Your task to perform on an android device: toggle sleep mode Image 0: 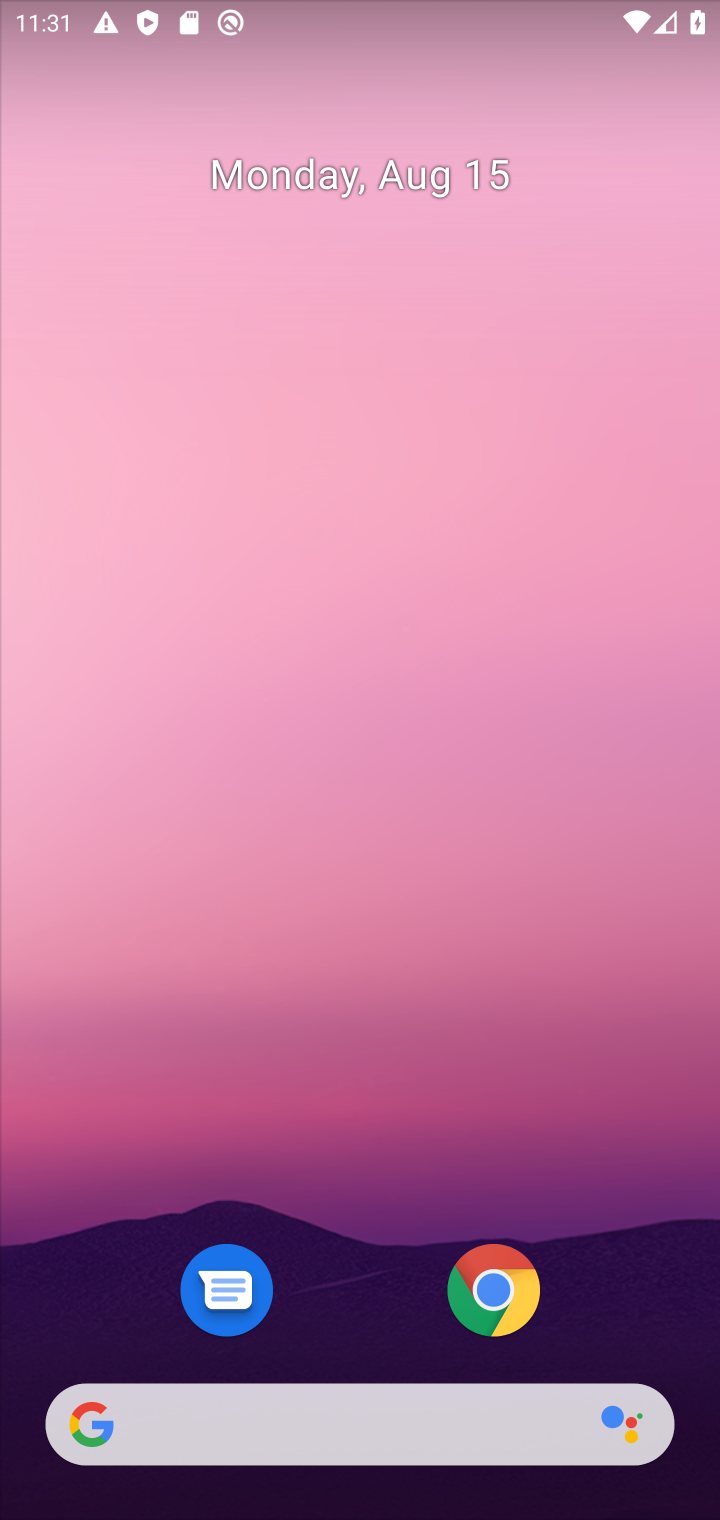
Step 0: press home button
Your task to perform on an android device: toggle sleep mode Image 1: 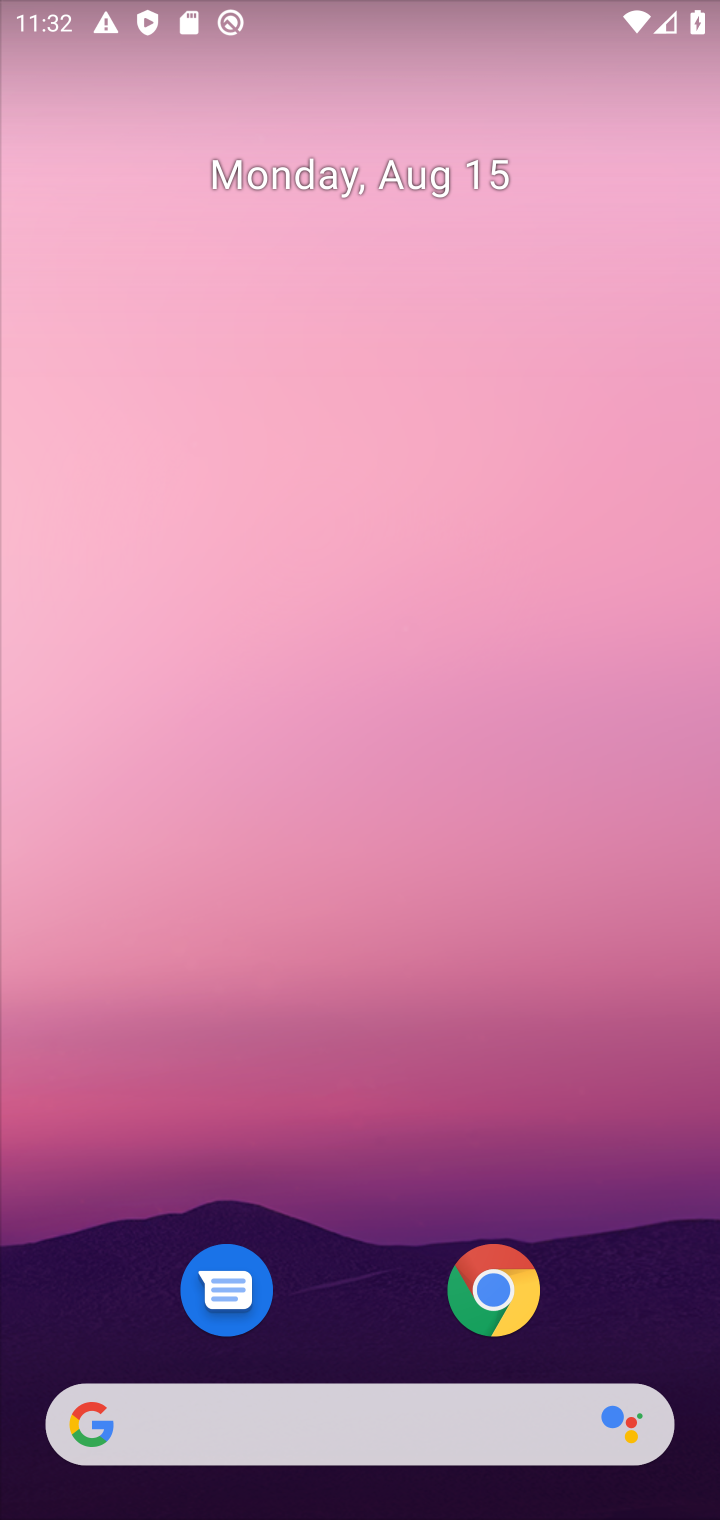
Step 1: drag from (73, 1318) to (607, 64)
Your task to perform on an android device: toggle sleep mode Image 2: 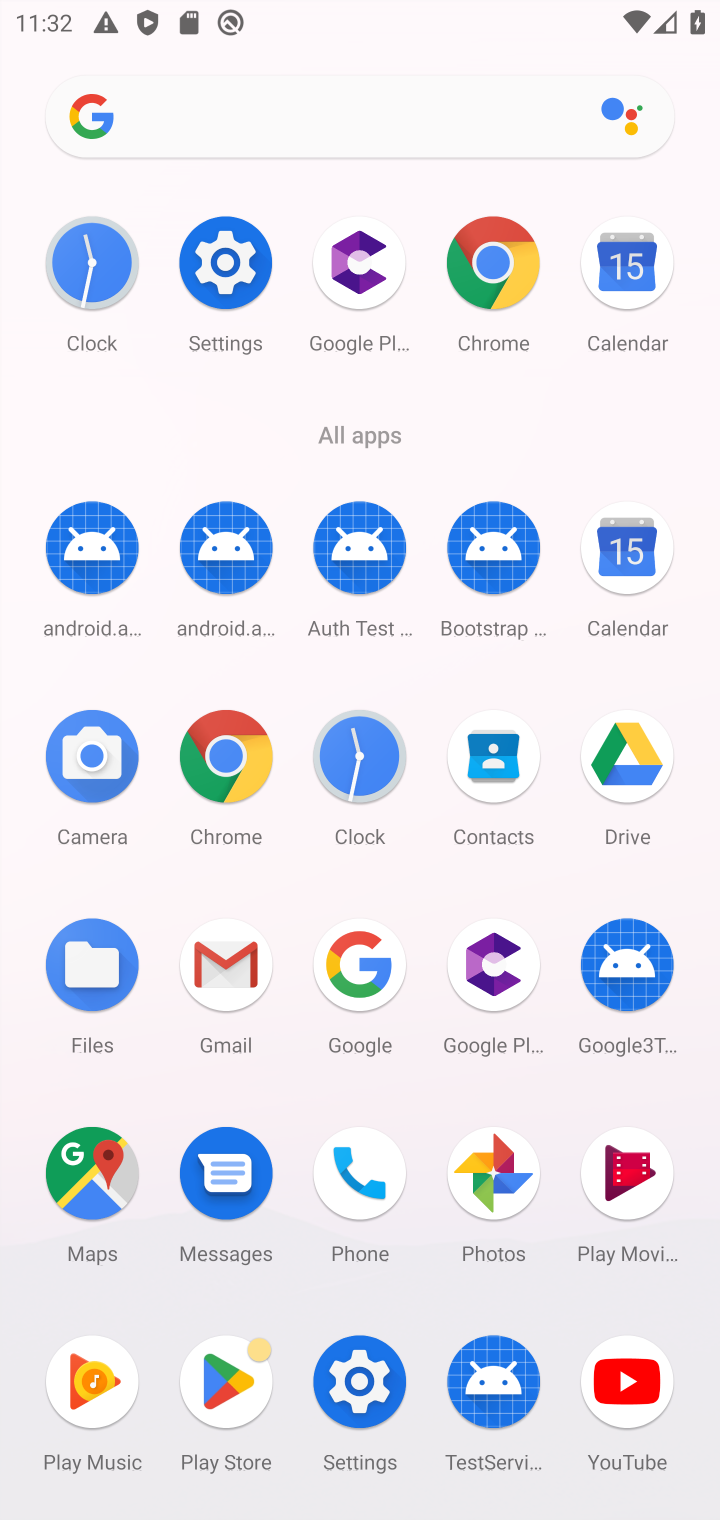
Step 2: click (243, 257)
Your task to perform on an android device: toggle sleep mode Image 3: 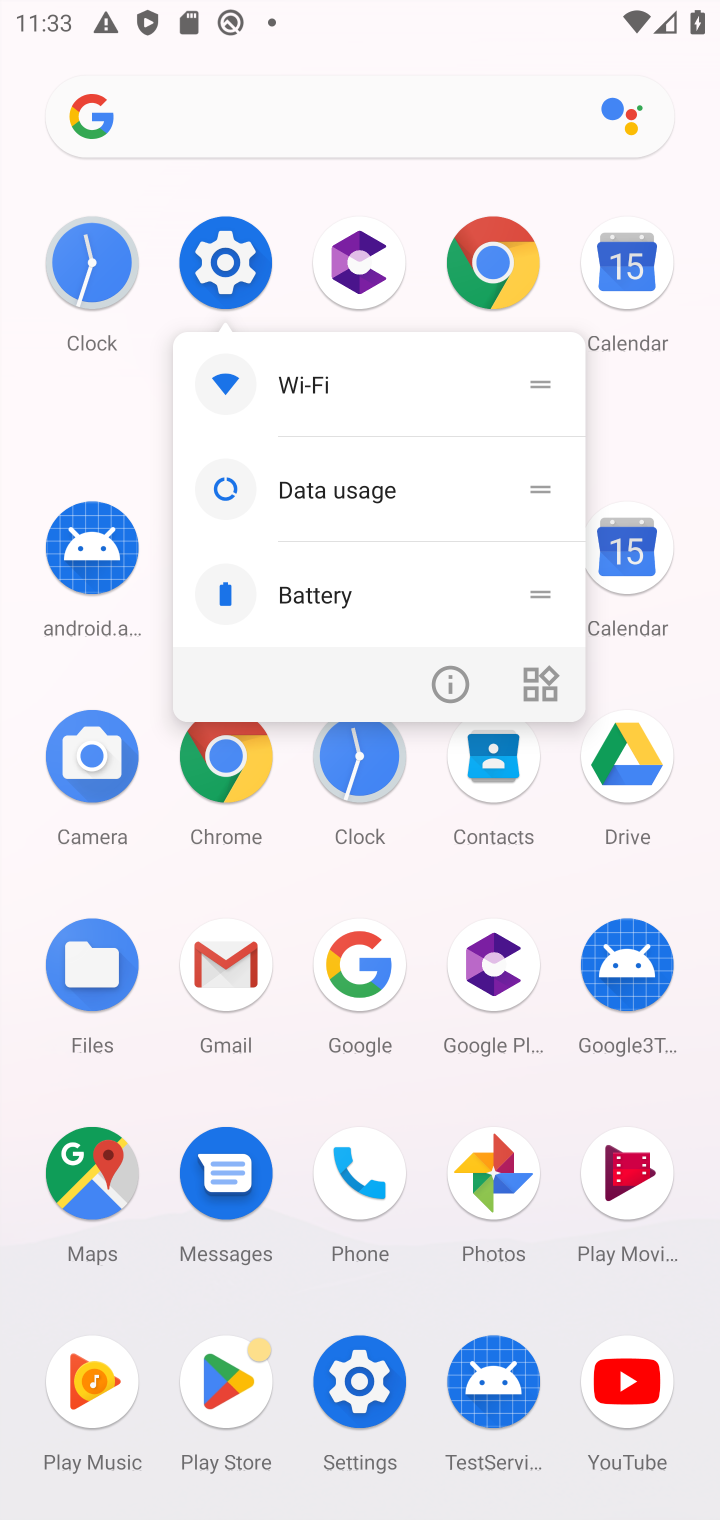
Step 3: click (217, 284)
Your task to perform on an android device: toggle sleep mode Image 4: 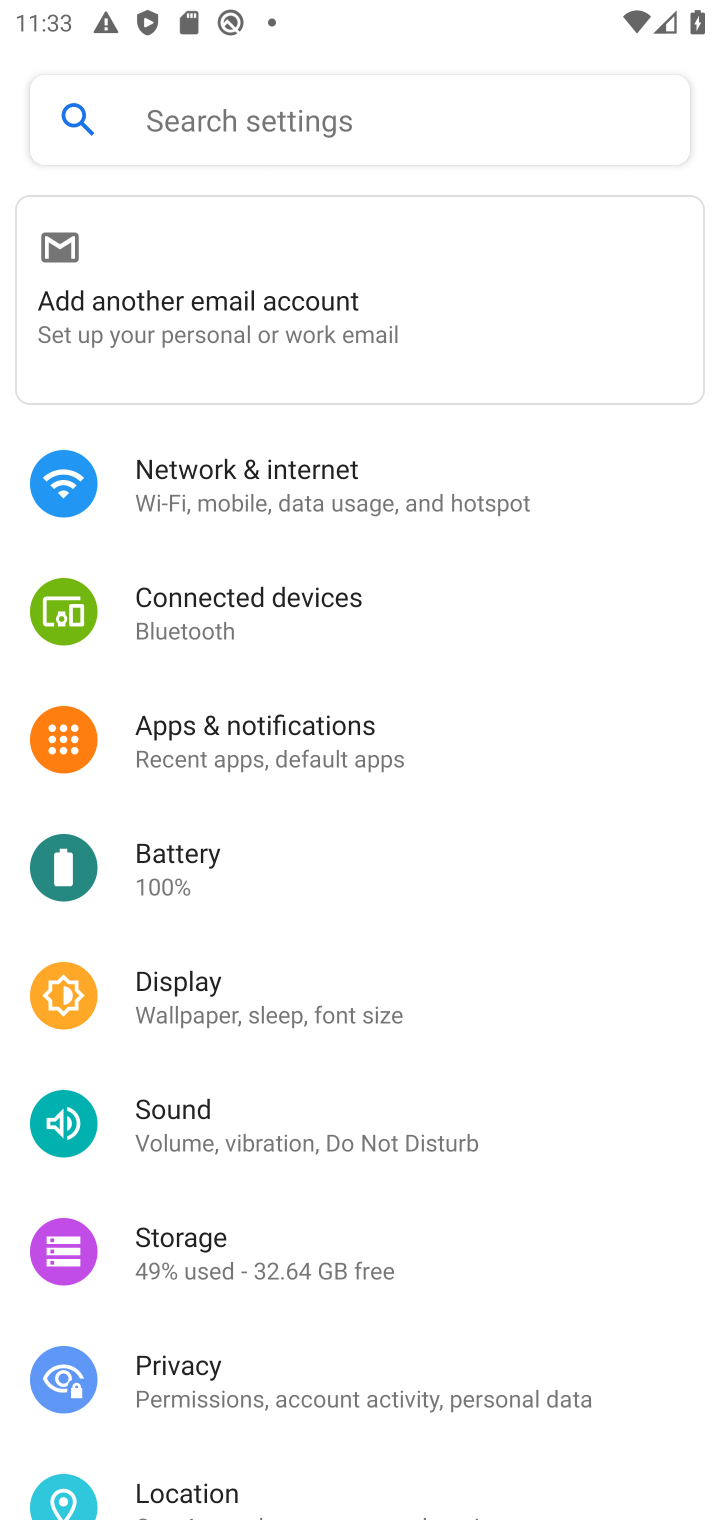
Step 4: task complete